Your task to perform on an android device: Is it going to rain tomorrow? Image 0: 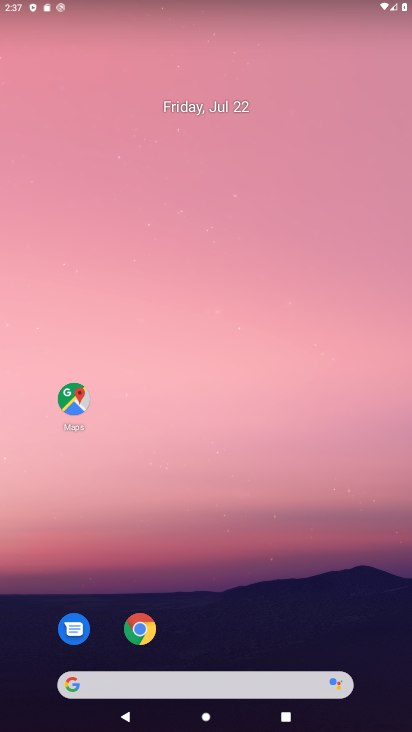
Step 0: drag from (321, 657) to (257, 99)
Your task to perform on an android device: Is it going to rain tomorrow? Image 1: 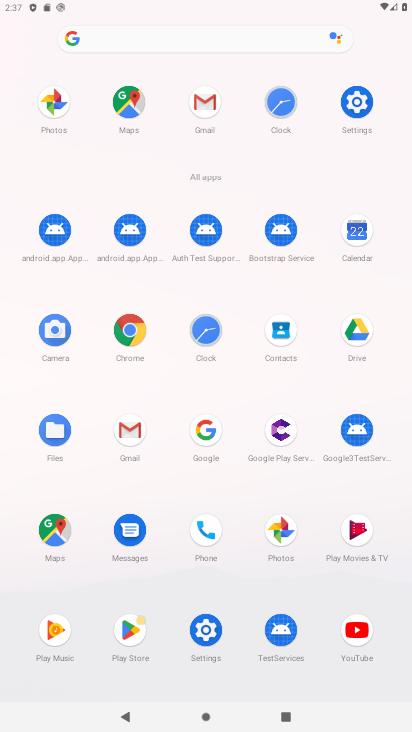
Step 1: click (138, 336)
Your task to perform on an android device: Is it going to rain tomorrow? Image 2: 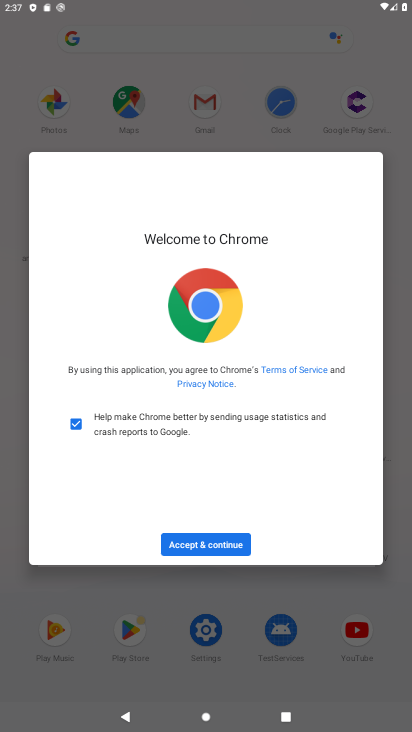
Step 2: click (223, 546)
Your task to perform on an android device: Is it going to rain tomorrow? Image 3: 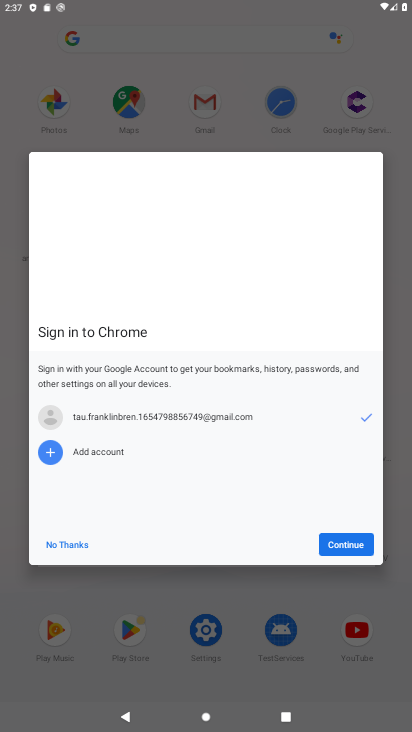
Step 3: click (342, 548)
Your task to perform on an android device: Is it going to rain tomorrow? Image 4: 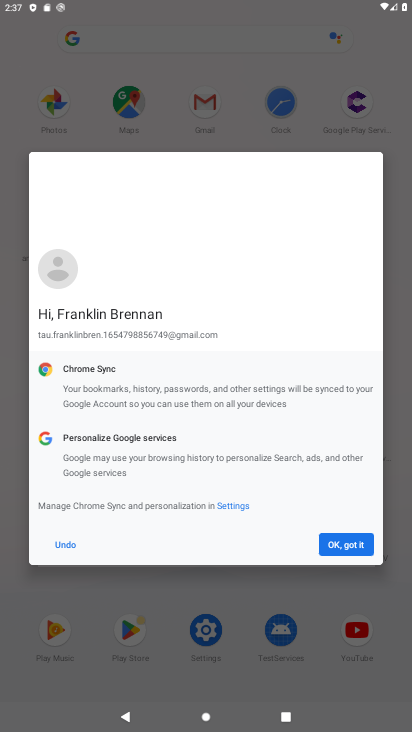
Step 4: click (336, 550)
Your task to perform on an android device: Is it going to rain tomorrow? Image 5: 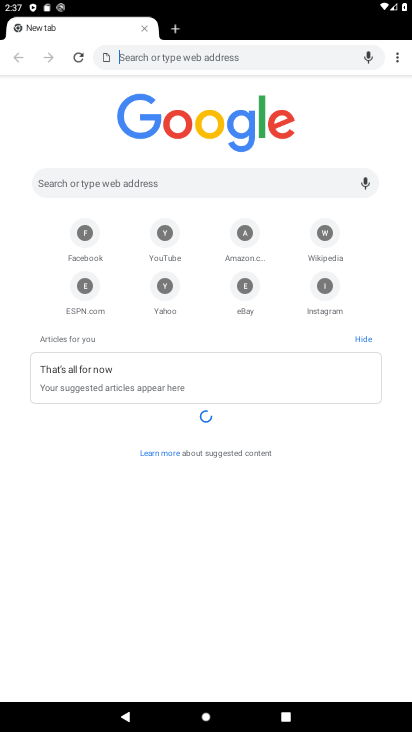
Step 5: click (167, 180)
Your task to perform on an android device: Is it going to rain tomorrow? Image 6: 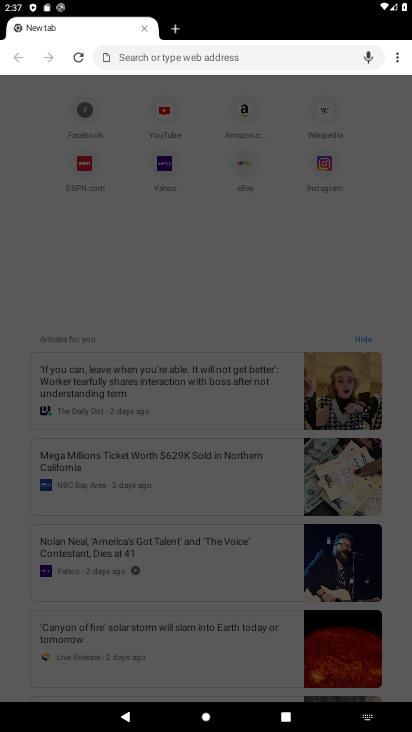
Step 6: click (215, 55)
Your task to perform on an android device: Is it going to rain tomorrow? Image 7: 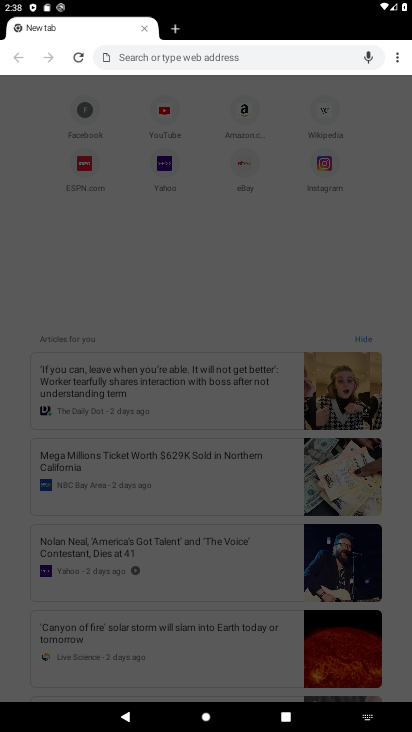
Step 7: type "Is it going to rain tomorrow?"
Your task to perform on an android device: Is it going to rain tomorrow? Image 8: 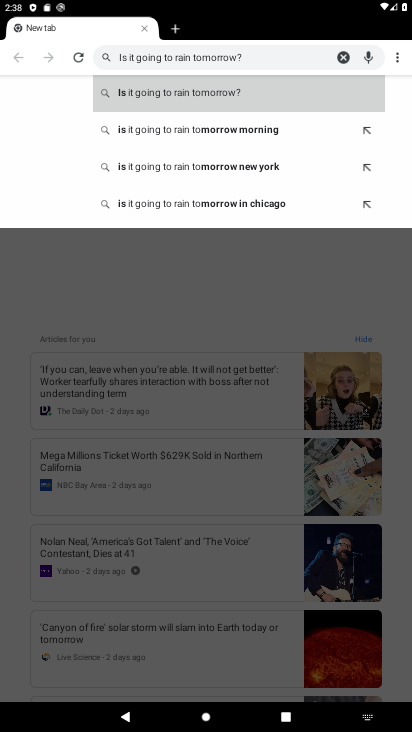
Step 8: click (217, 92)
Your task to perform on an android device: Is it going to rain tomorrow? Image 9: 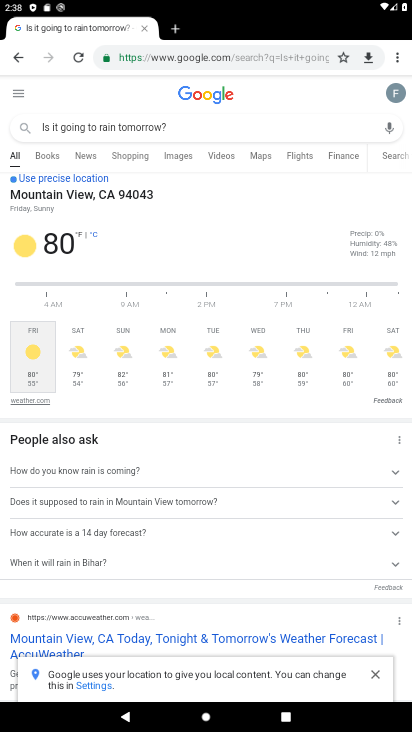
Step 9: task complete